Your task to perform on an android device: Is it going to rain today? Image 0: 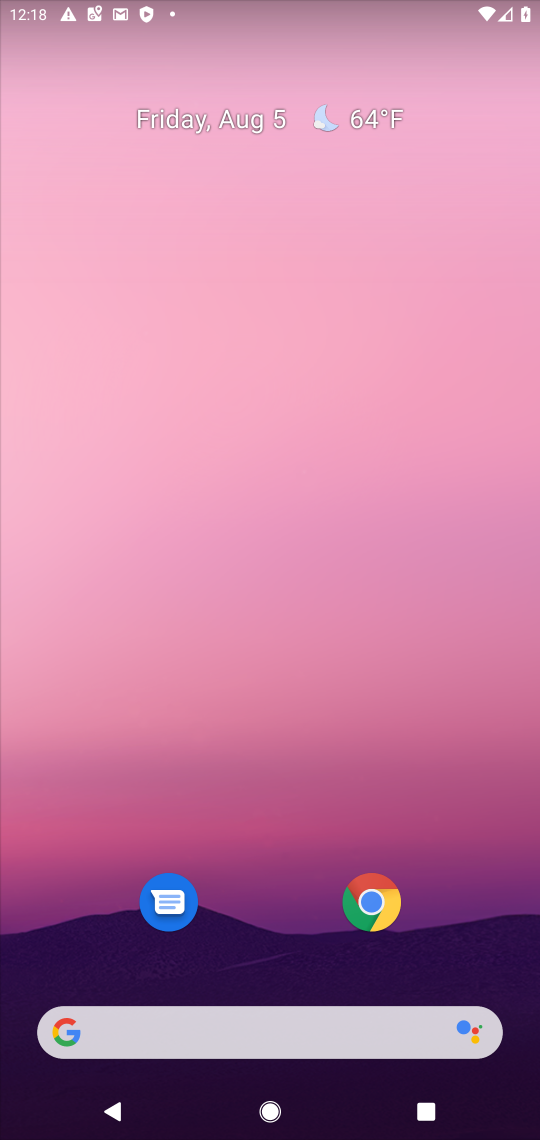
Step 0: press home button
Your task to perform on an android device: Is it going to rain today? Image 1: 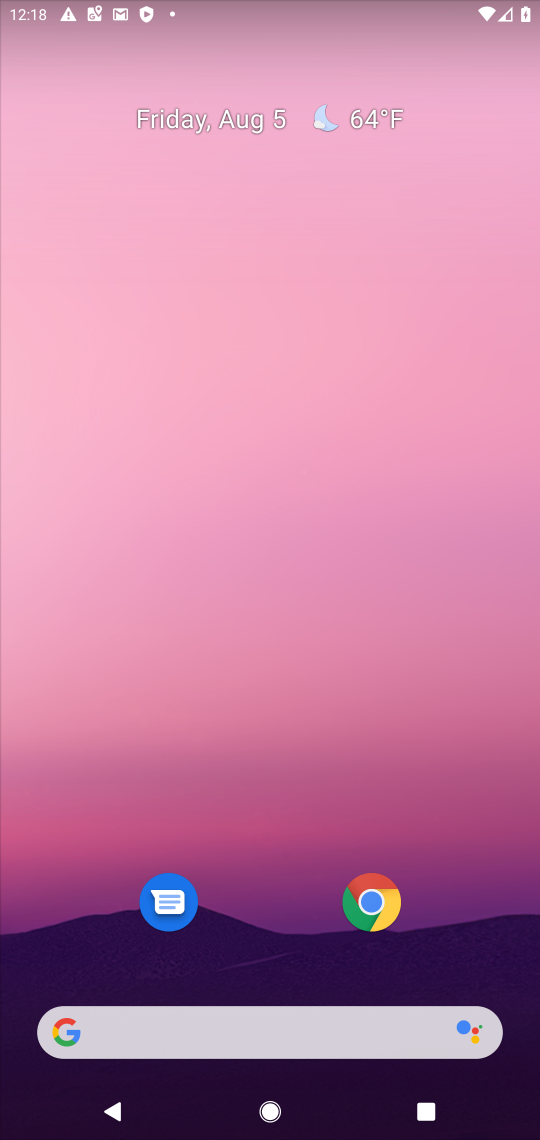
Step 1: drag from (288, 978) to (307, 375)
Your task to perform on an android device: Is it going to rain today? Image 2: 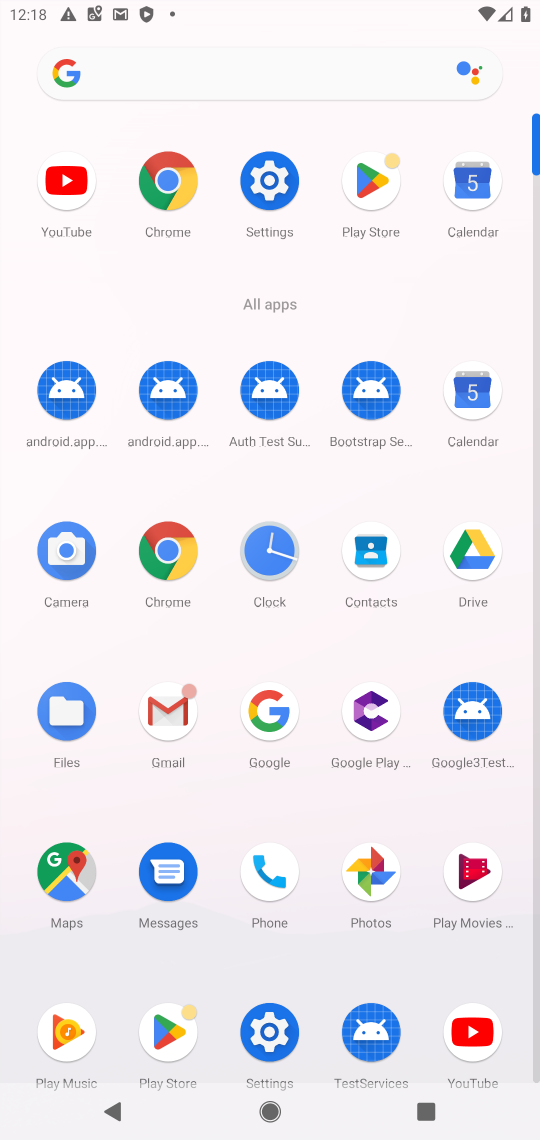
Step 2: press home button
Your task to perform on an android device: Is it going to rain today? Image 3: 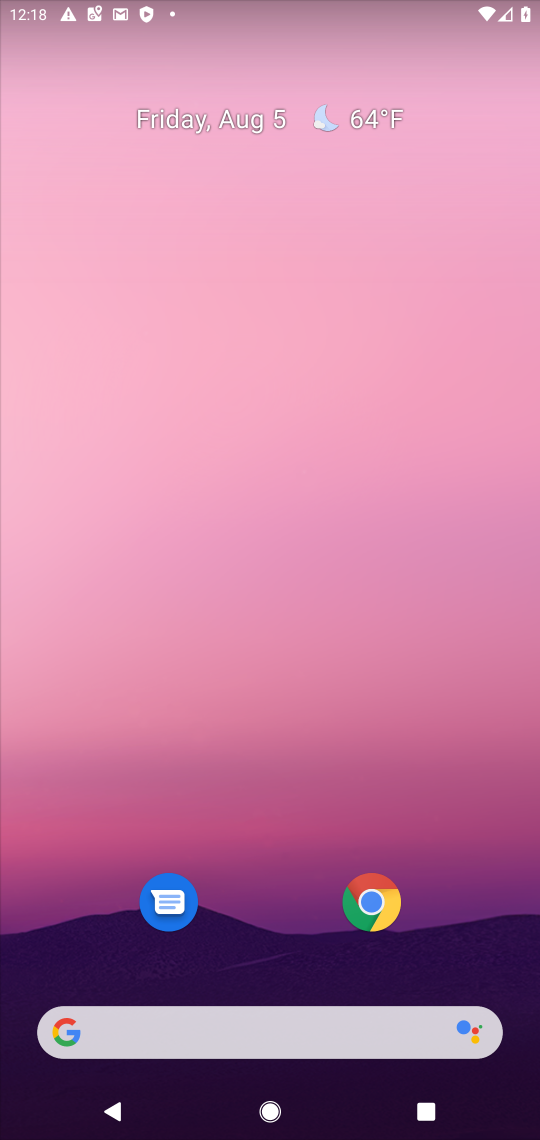
Step 3: click (365, 112)
Your task to perform on an android device: Is it going to rain today? Image 4: 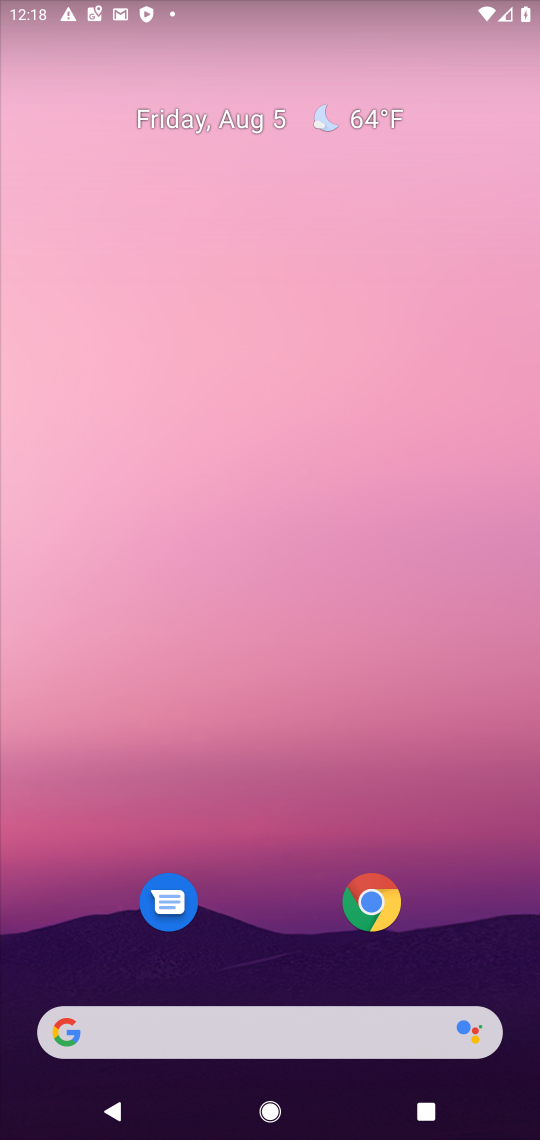
Step 4: click (363, 115)
Your task to perform on an android device: Is it going to rain today? Image 5: 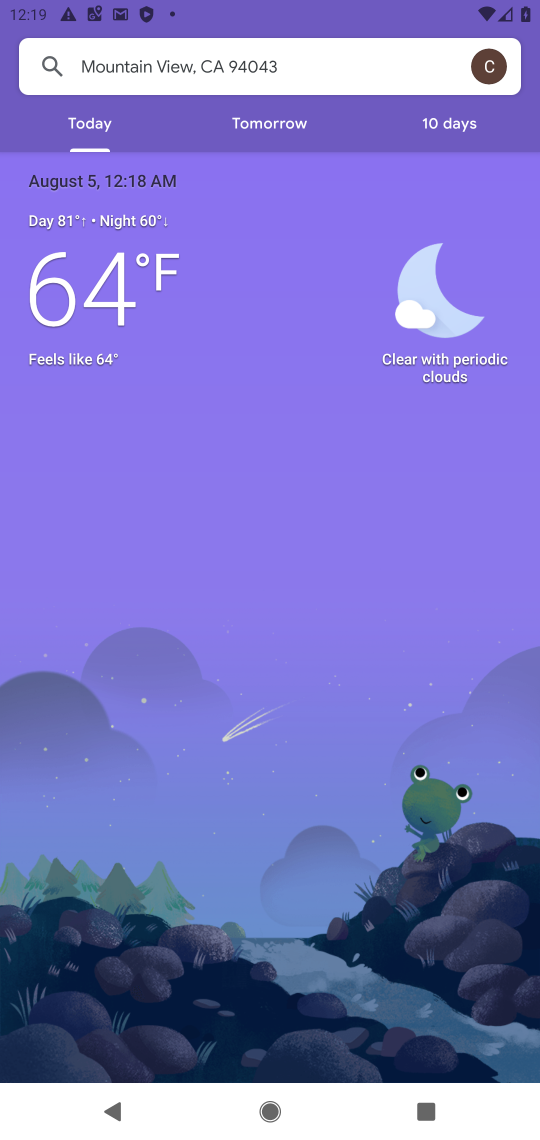
Step 5: task complete